Your task to perform on an android device: Play the last video I watched on Youtube Image 0: 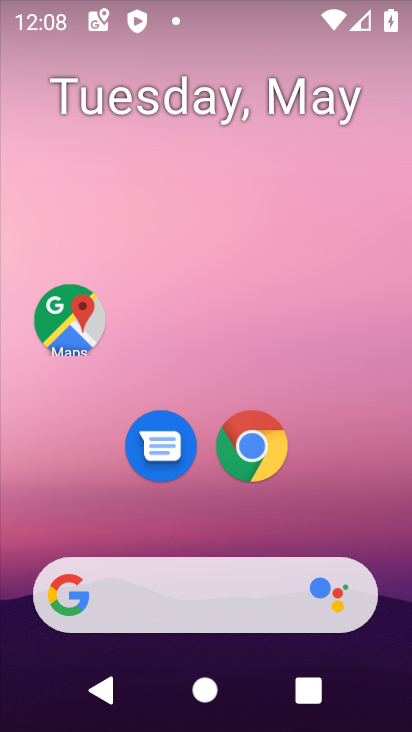
Step 0: drag from (310, 496) to (373, 116)
Your task to perform on an android device: Play the last video I watched on Youtube Image 1: 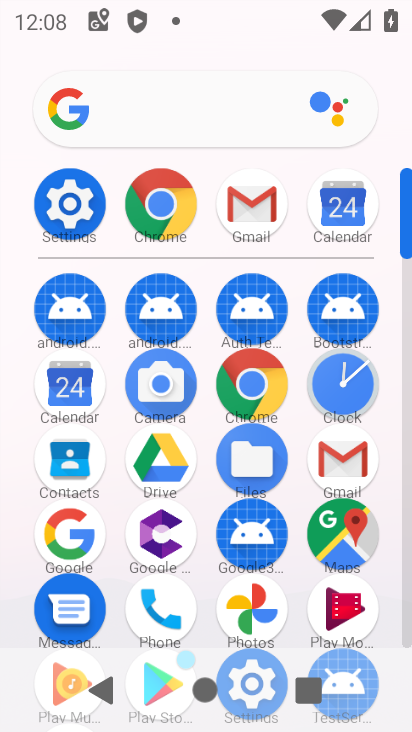
Step 1: drag from (377, 624) to (389, 255)
Your task to perform on an android device: Play the last video I watched on Youtube Image 2: 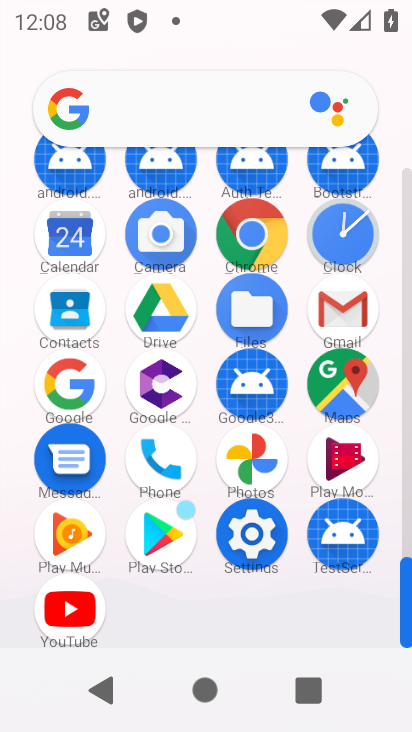
Step 2: click (61, 623)
Your task to perform on an android device: Play the last video I watched on Youtube Image 3: 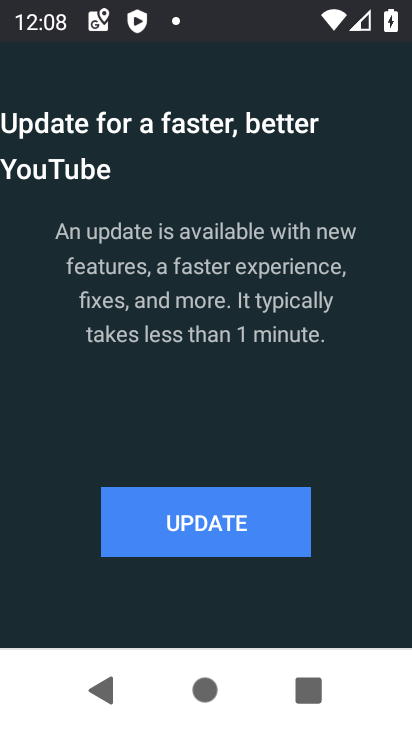
Step 3: click (222, 537)
Your task to perform on an android device: Play the last video I watched on Youtube Image 4: 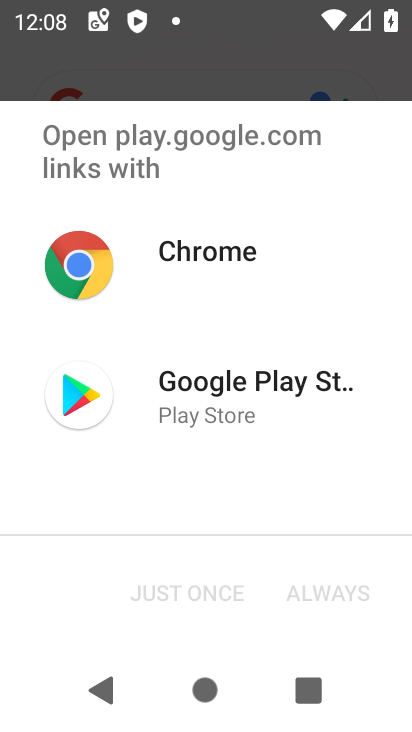
Step 4: click (121, 403)
Your task to perform on an android device: Play the last video I watched on Youtube Image 5: 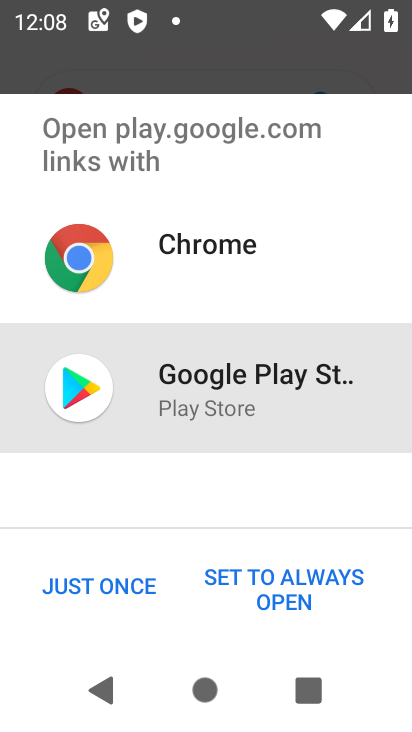
Step 5: click (112, 609)
Your task to perform on an android device: Play the last video I watched on Youtube Image 6: 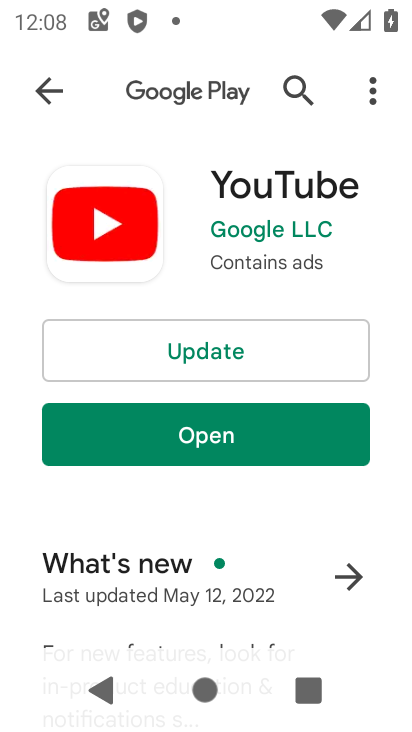
Step 6: click (212, 355)
Your task to perform on an android device: Play the last video I watched on Youtube Image 7: 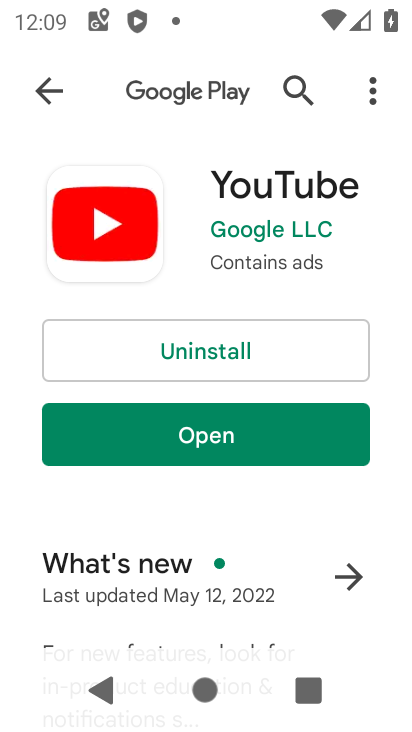
Step 7: click (185, 440)
Your task to perform on an android device: Play the last video I watched on Youtube Image 8: 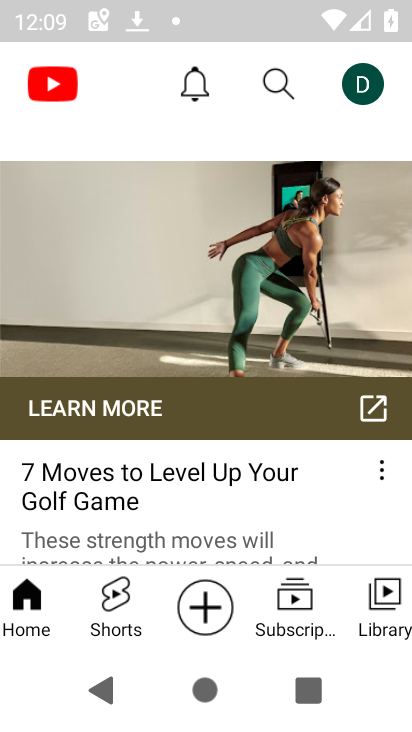
Step 8: click (379, 624)
Your task to perform on an android device: Play the last video I watched on Youtube Image 9: 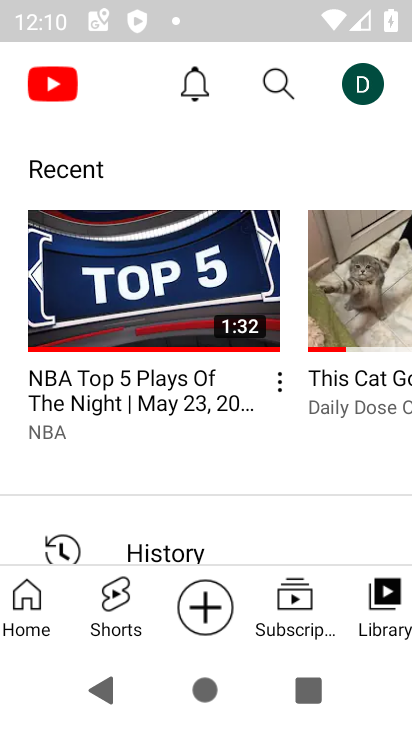
Step 9: click (195, 285)
Your task to perform on an android device: Play the last video I watched on Youtube Image 10: 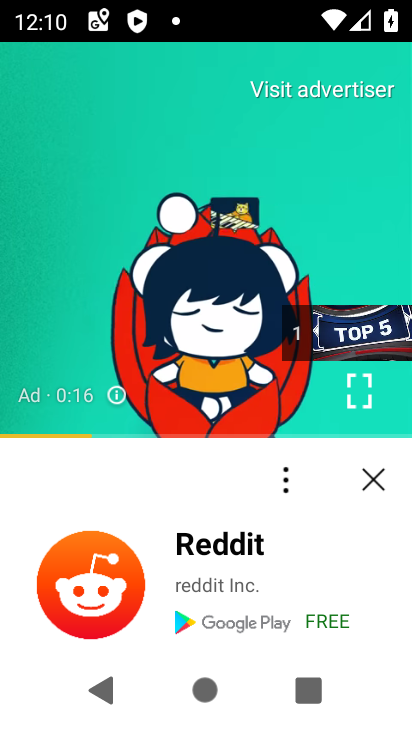
Step 10: task complete